Your task to perform on an android device: Find coffee shops on Maps Image 0: 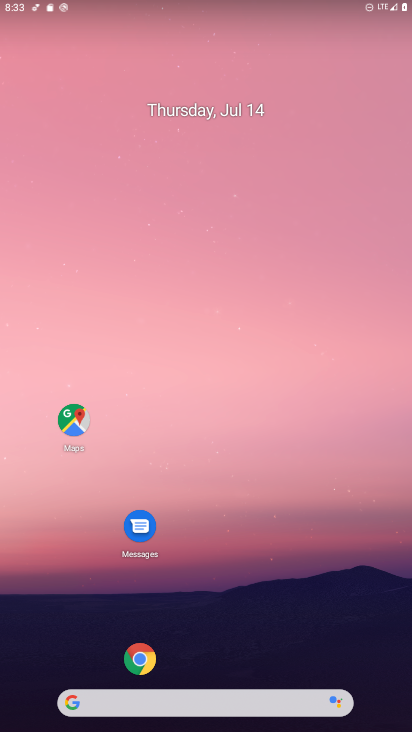
Step 0: drag from (181, 692) to (202, 388)
Your task to perform on an android device: Find coffee shops on Maps Image 1: 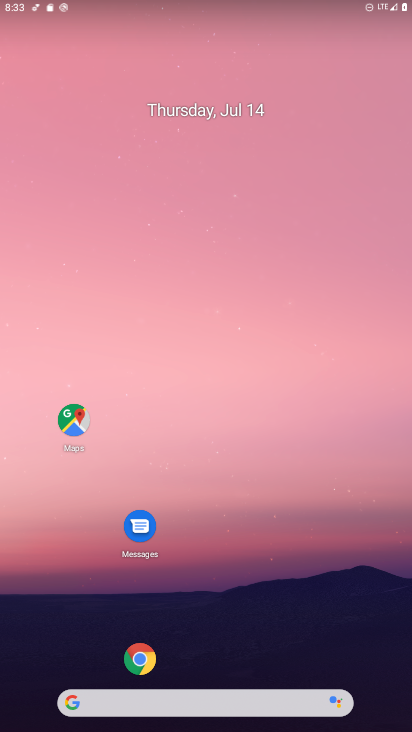
Step 1: drag from (219, 687) to (225, 307)
Your task to perform on an android device: Find coffee shops on Maps Image 2: 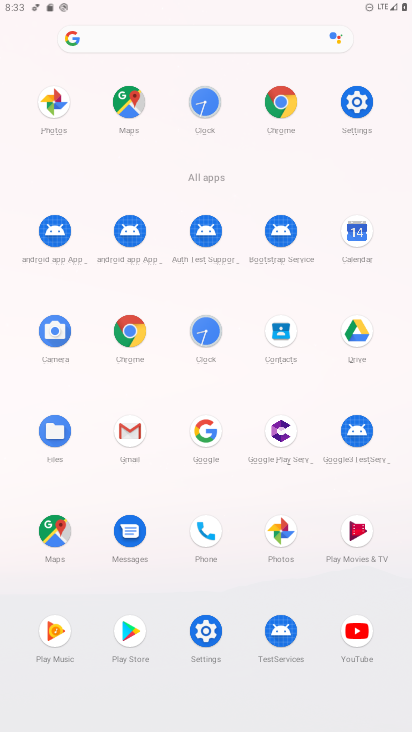
Step 2: click (129, 105)
Your task to perform on an android device: Find coffee shops on Maps Image 3: 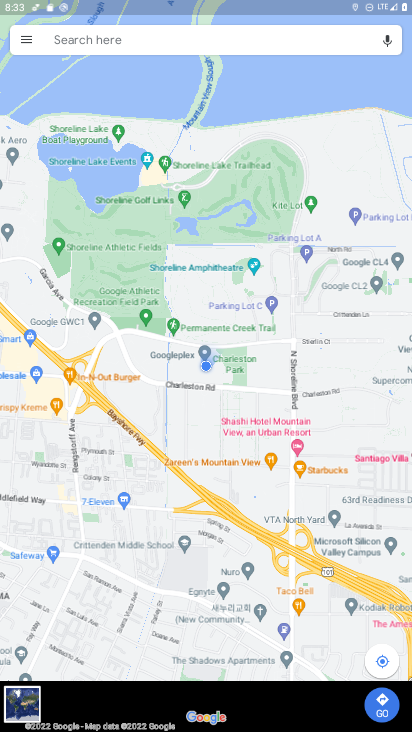
Step 3: click (128, 41)
Your task to perform on an android device: Find coffee shops on Maps Image 4: 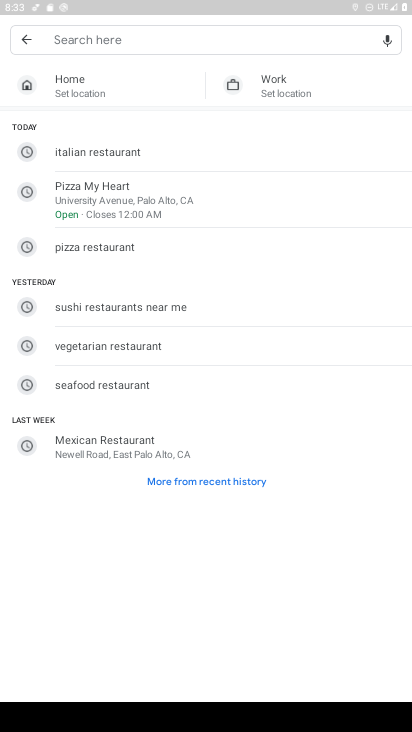
Step 4: type "coffee shops"
Your task to perform on an android device: Find coffee shops on Maps Image 5: 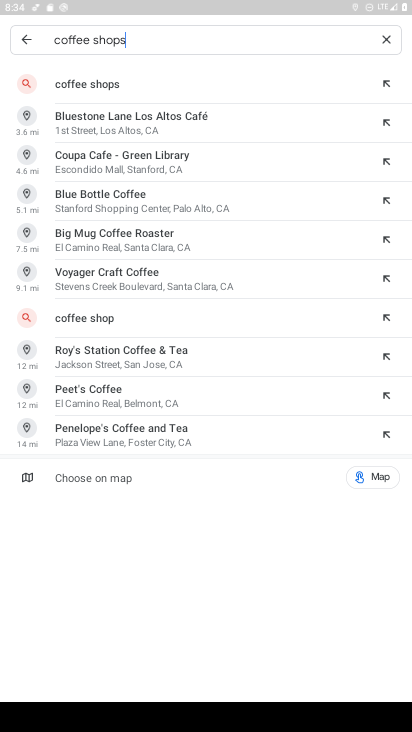
Step 5: click (72, 83)
Your task to perform on an android device: Find coffee shops on Maps Image 6: 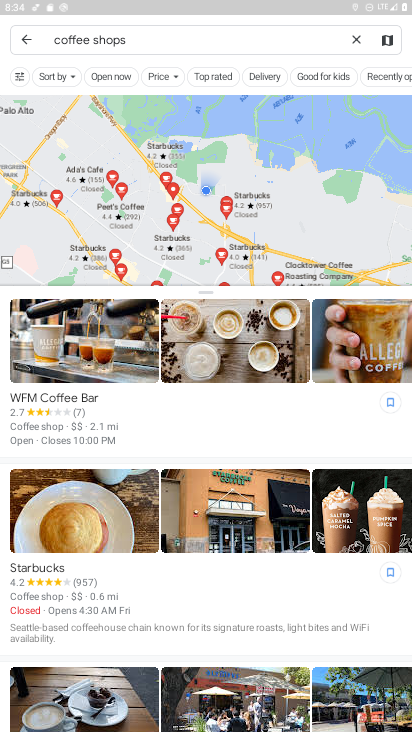
Step 6: task complete